Your task to perform on an android device: Look up the best rated drill on Lowes. Image 0: 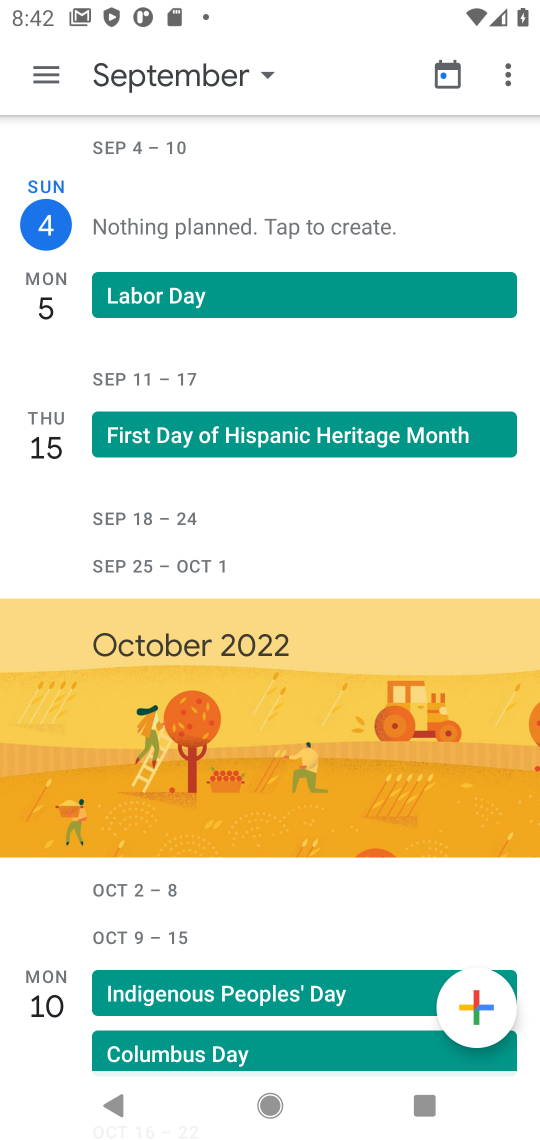
Step 0: press home button
Your task to perform on an android device: Look up the best rated drill on Lowes. Image 1: 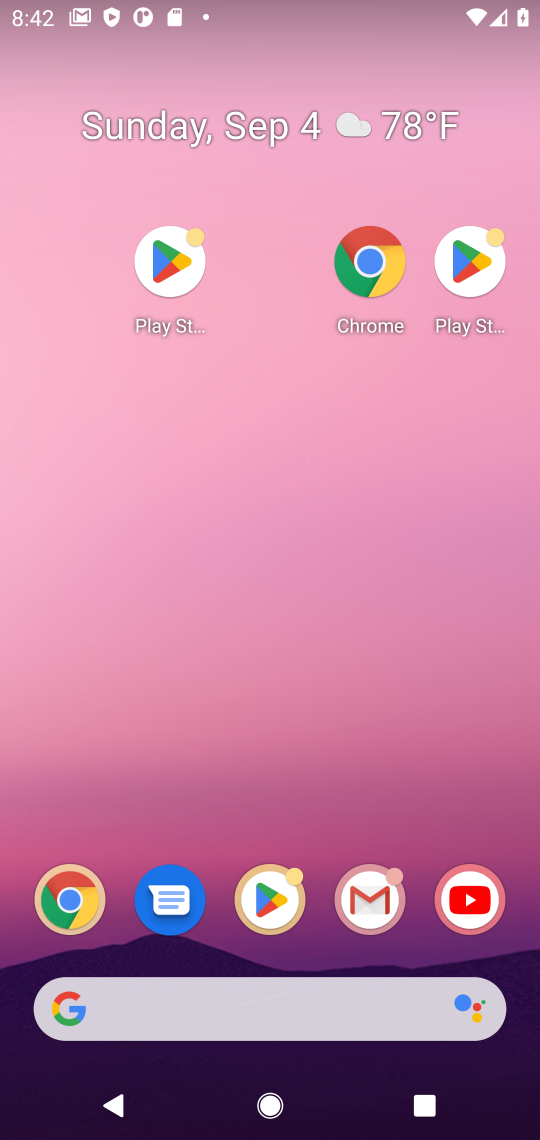
Step 1: drag from (295, 941) to (253, 84)
Your task to perform on an android device: Look up the best rated drill on Lowes. Image 2: 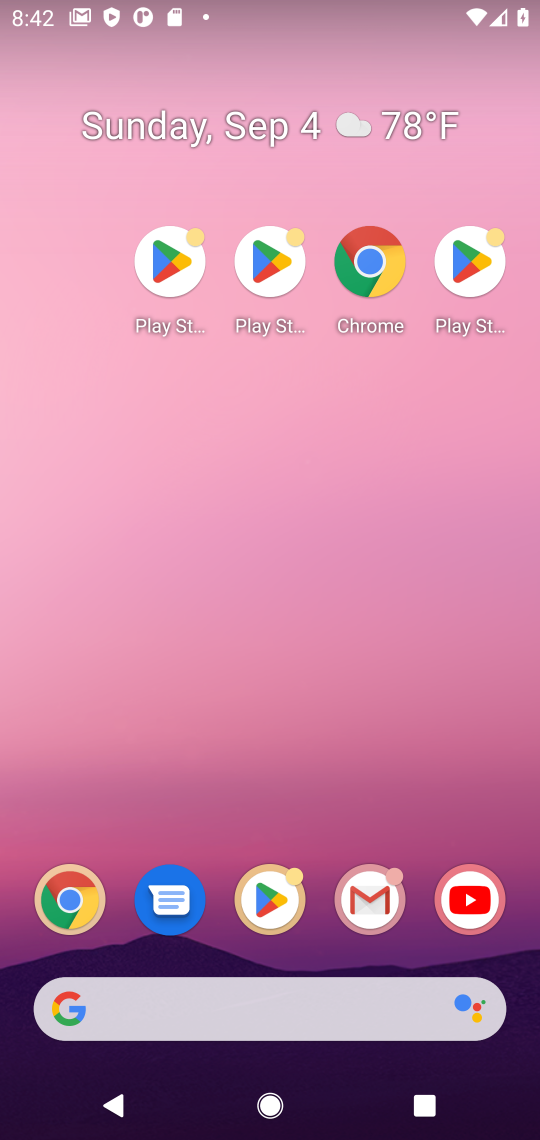
Step 2: click (273, 487)
Your task to perform on an android device: Look up the best rated drill on Lowes. Image 3: 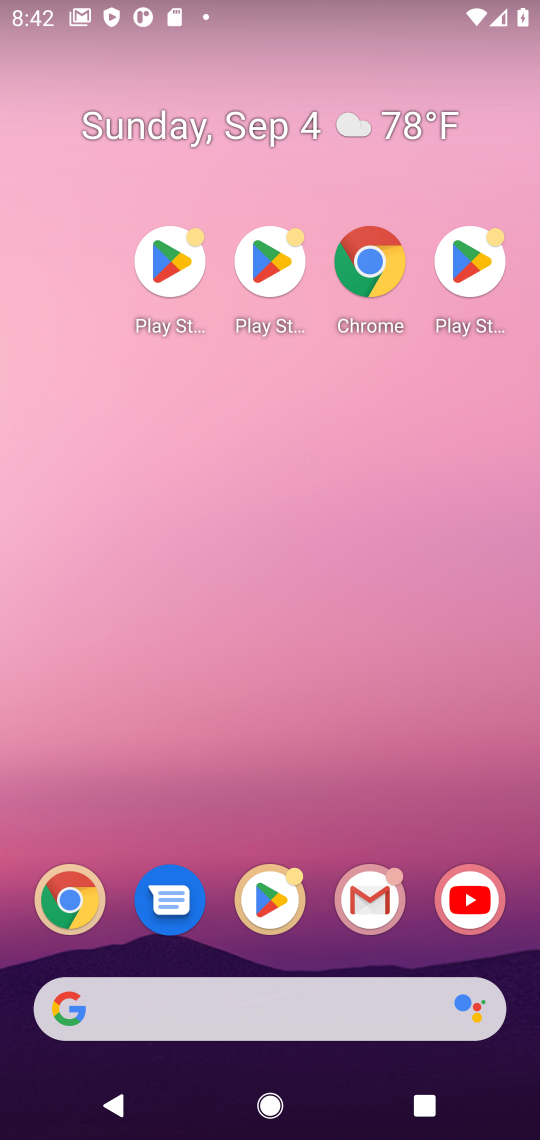
Step 3: drag from (325, 959) to (475, 557)
Your task to perform on an android device: Look up the best rated drill on Lowes. Image 4: 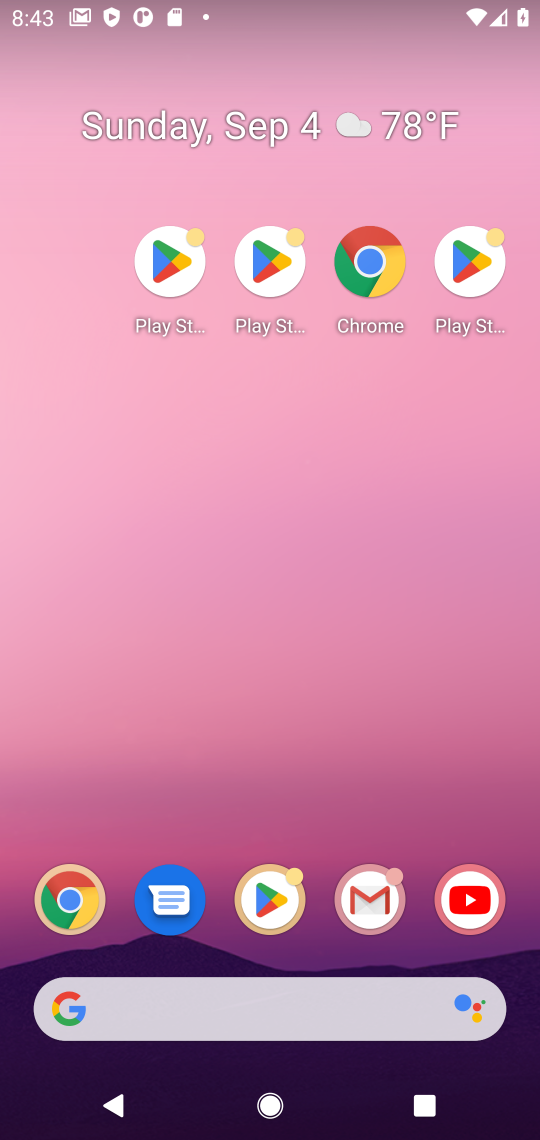
Step 4: drag from (267, 970) to (170, 124)
Your task to perform on an android device: Look up the best rated drill on Lowes. Image 5: 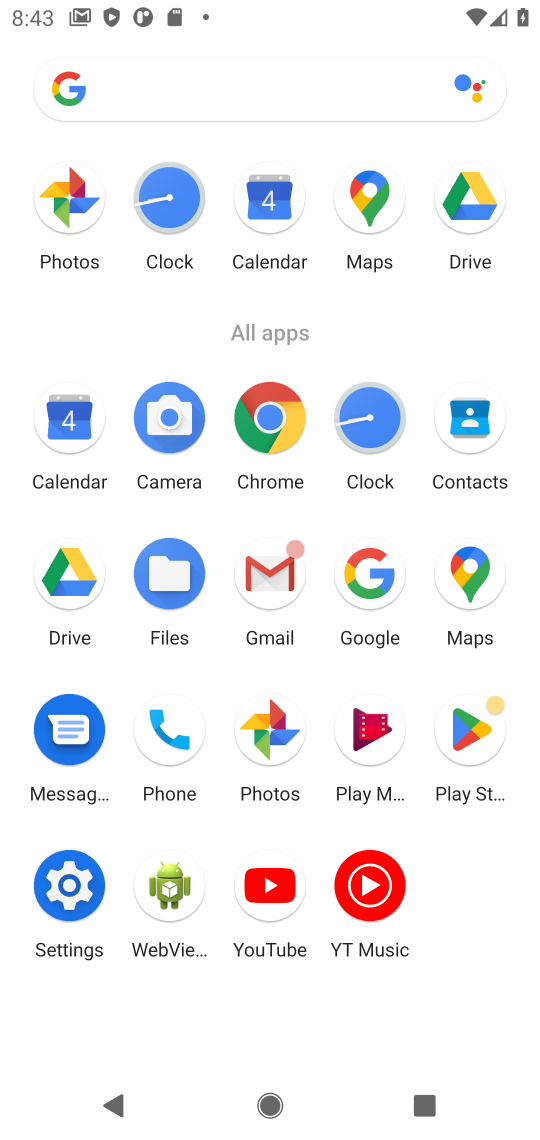
Step 5: click (272, 439)
Your task to perform on an android device: Look up the best rated drill on Lowes. Image 6: 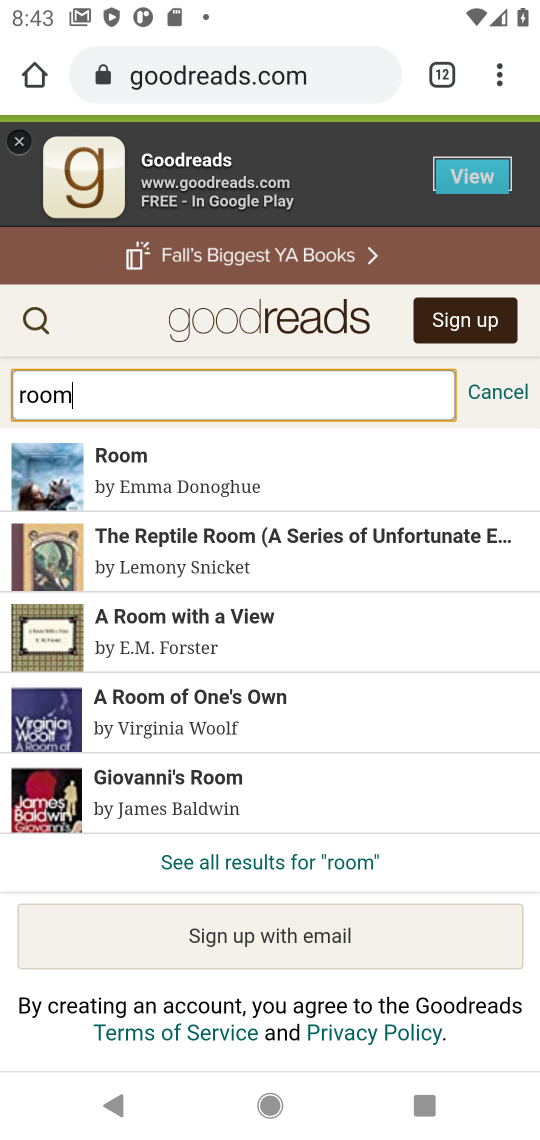
Step 6: click (434, 73)
Your task to perform on an android device: Look up the best rated drill on Lowes. Image 7: 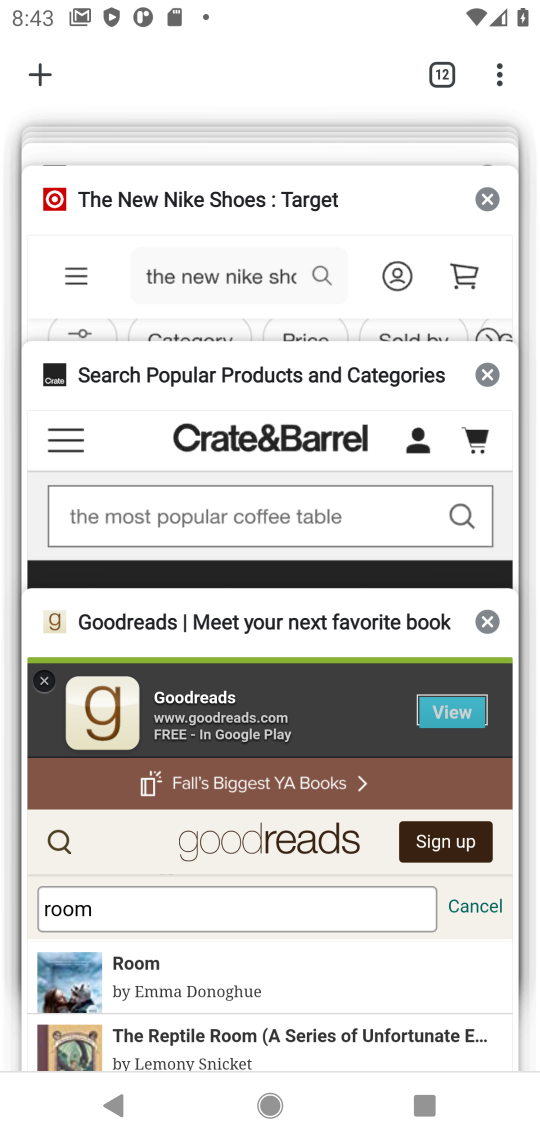
Step 7: click (36, 79)
Your task to perform on an android device: Look up the best rated drill on Lowes. Image 8: 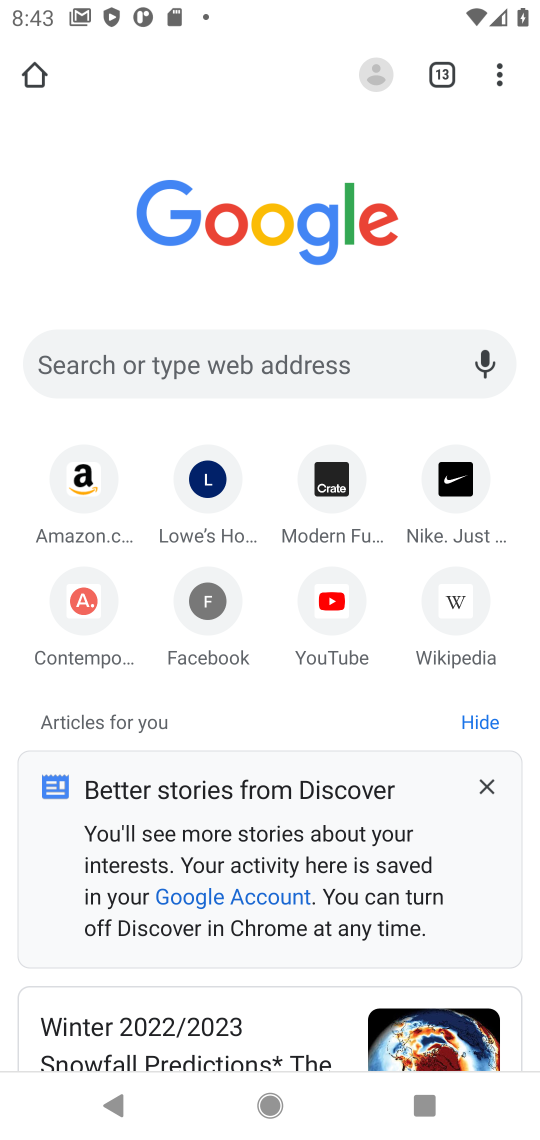
Step 8: click (118, 374)
Your task to perform on an android device: Look up the best rated drill on Lowes. Image 9: 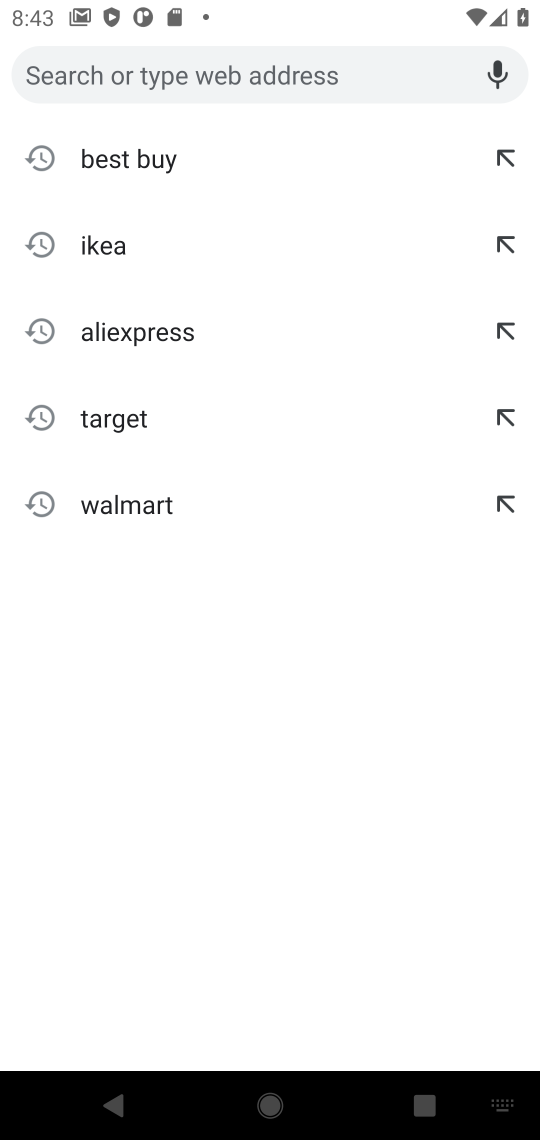
Step 9: type "Lowes"
Your task to perform on an android device: Look up the best rated drill on Lowes. Image 10: 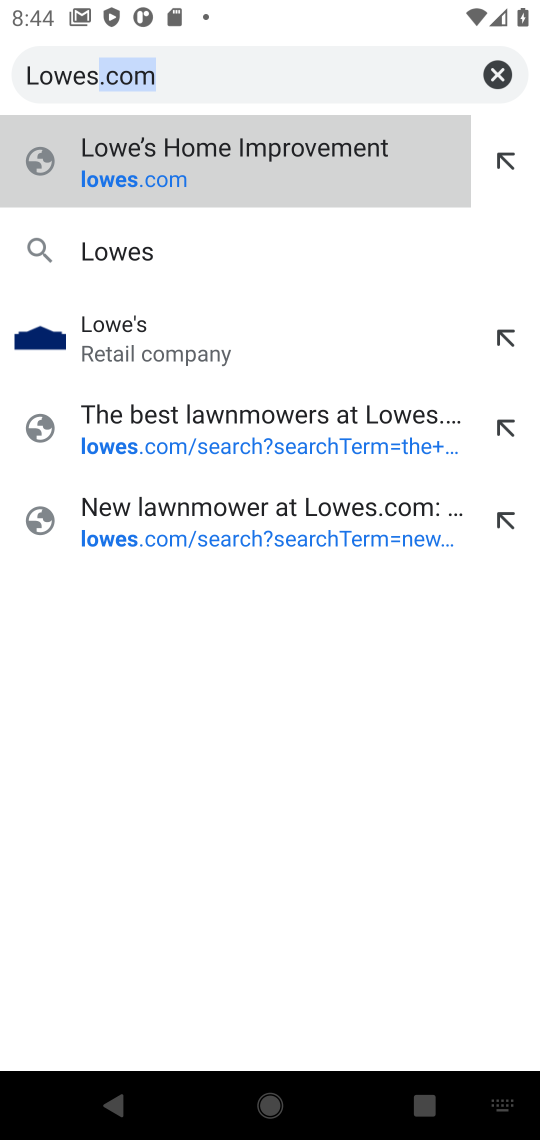
Step 10: click (273, 167)
Your task to perform on an android device: Look up the best rated drill on Lowes. Image 11: 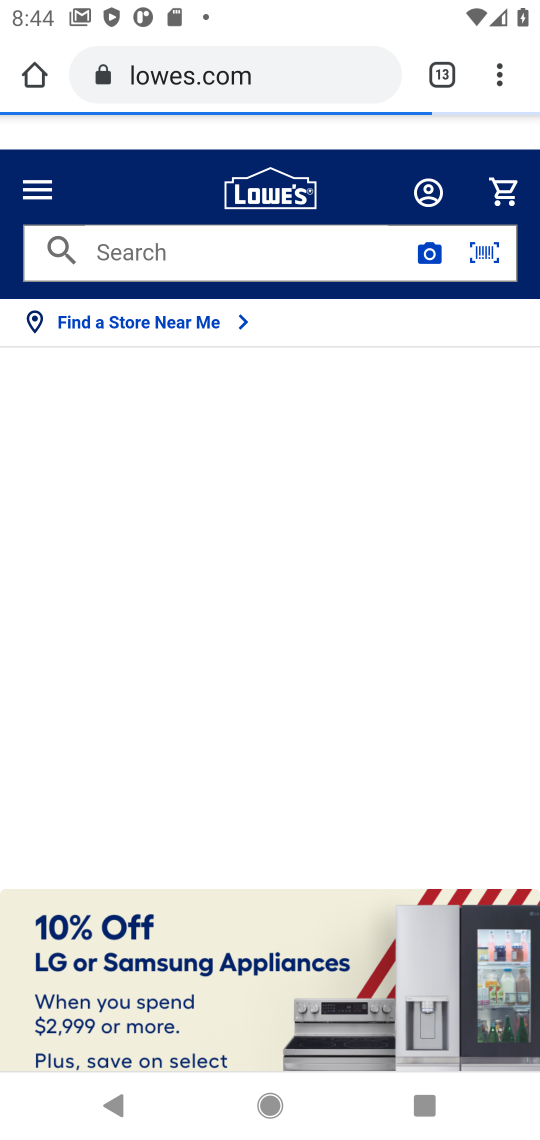
Step 11: click (220, 235)
Your task to perform on an android device: Look up the best rated drill on Lowes. Image 12: 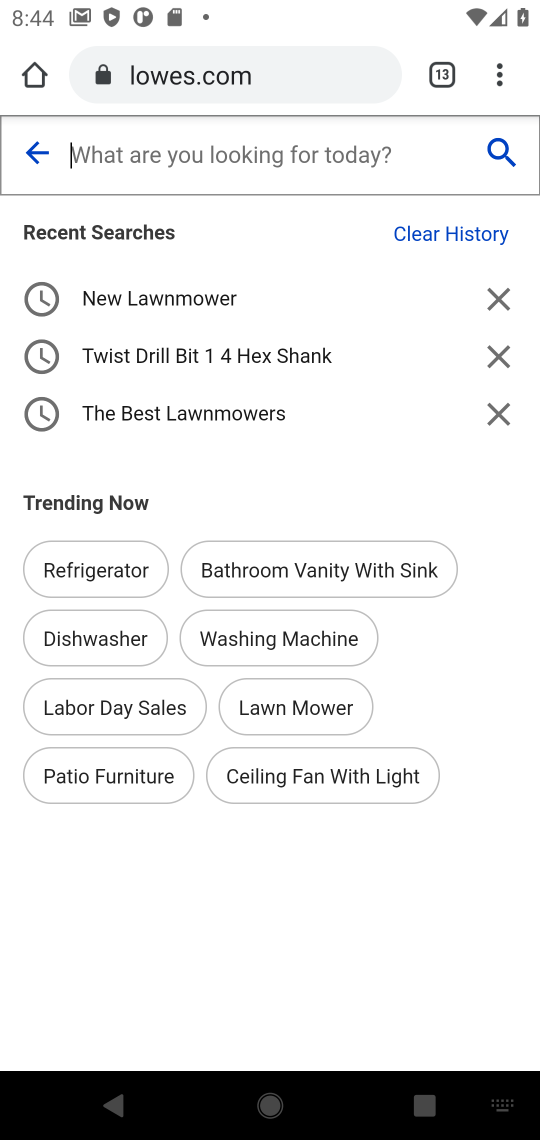
Step 12: type "the best rated drill"
Your task to perform on an android device: Look up the best rated drill on Lowes. Image 13: 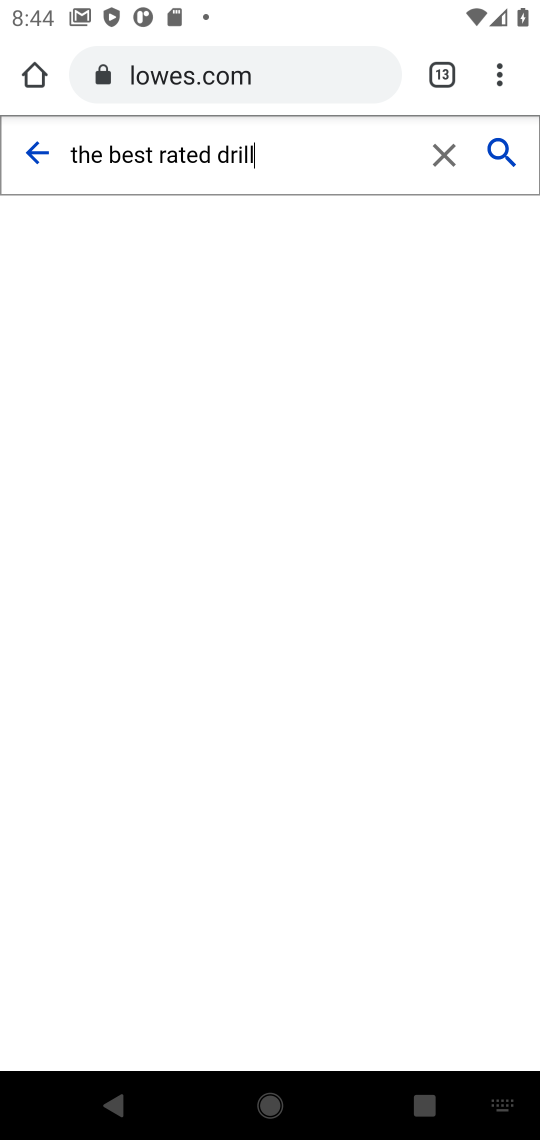
Step 13: click (510, 151)
Your task to perform on an android device: Look up the best rated drill on Lowes. Image 14: 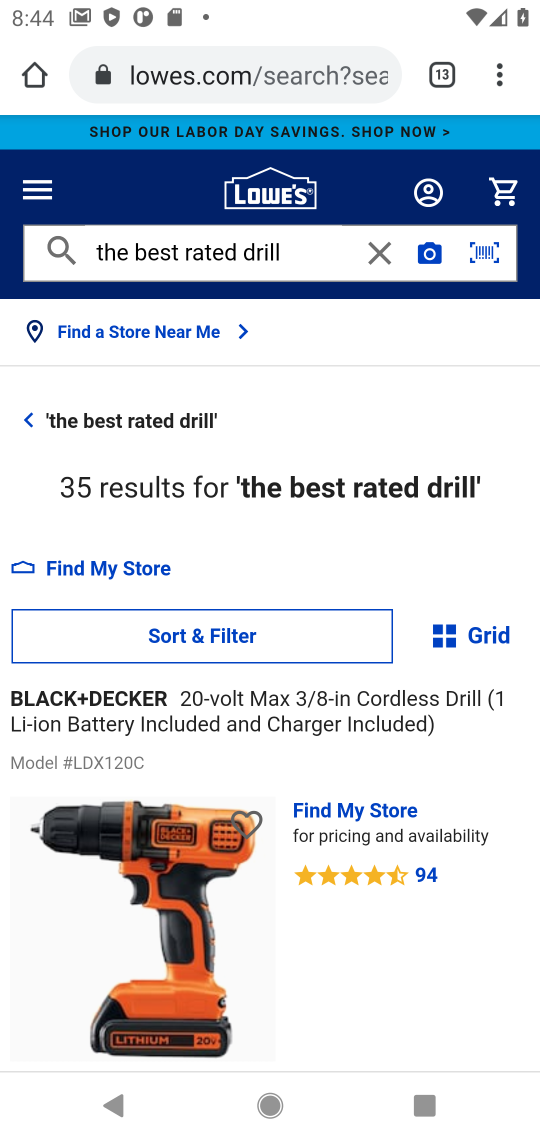
Step 14: task complete